Your task to perform on an android device: Open wifi settings Image 0: 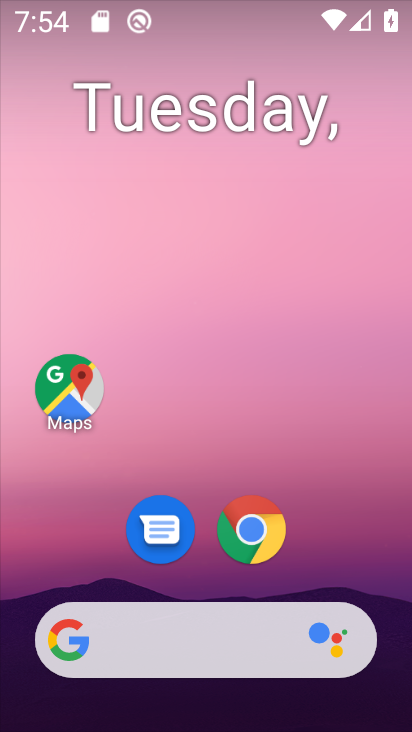
Step 0: drag from (220, 550) to (272, 10)
Your task to perform on an android device: Open wifi settings Image 1: 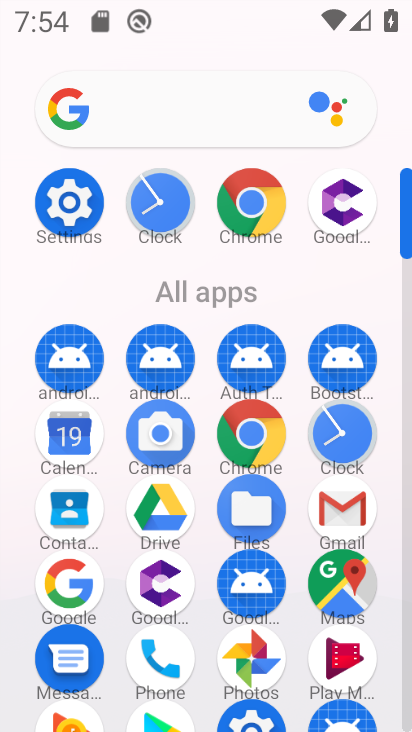
Step 1: click (84, 212)
Your task to perform on an android device: Open wifi settings Image 2: 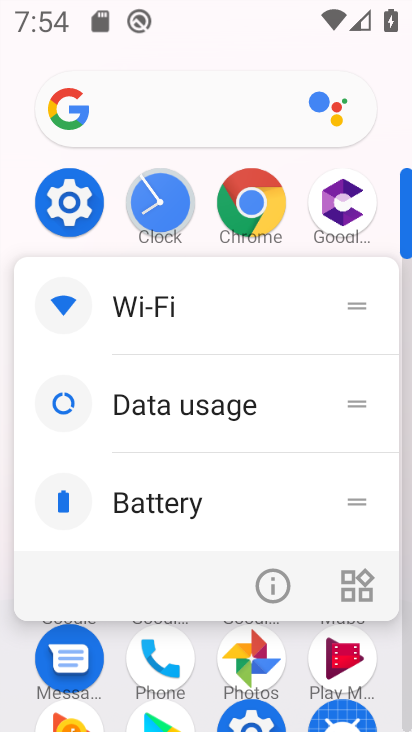
Step 2: click (118, 316)
Your task to perform on an android device: Open wifi settings Image 3: 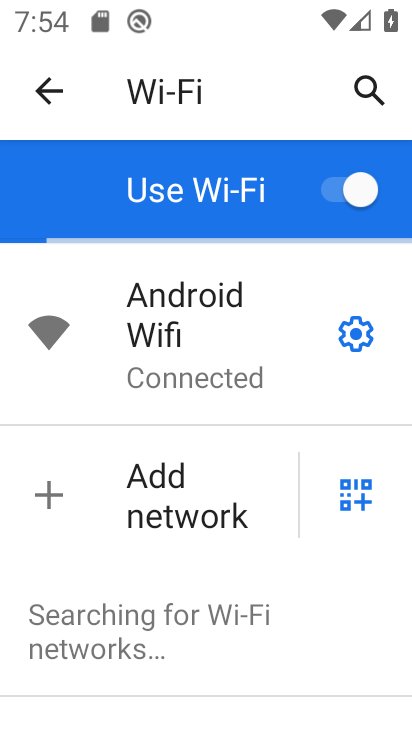
Step 3: task complete